Your task to perform on an android device: change notification settings in the gmail app Image 0: 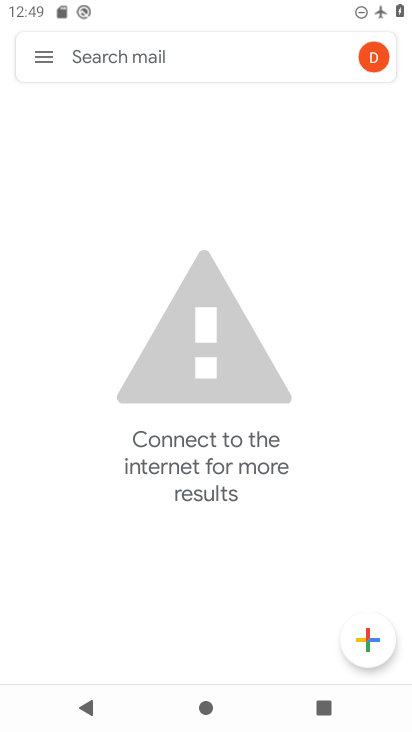
Step 0: press home button
Your task to perform on an android device: change notification settings in the gmail app Image 1: 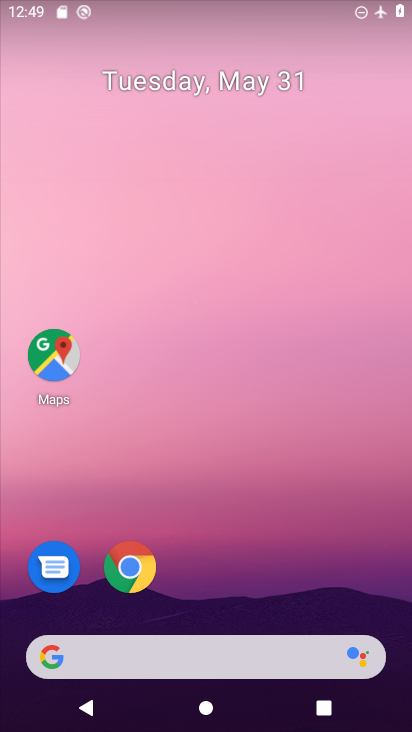
Step 1: drag from (201, 598) to (150, 179)
Your task to perform on an android device: change notification settings in the gmail app Image 2: 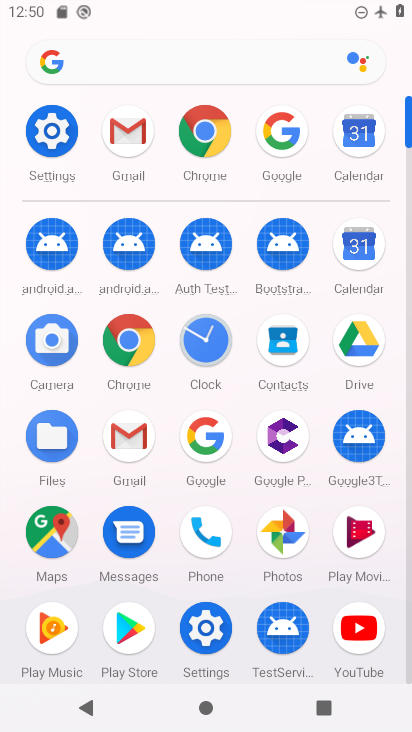
Step 2: click (116, 131)
Your task to perform on an android device: change notification settings in the gmail app Image 3: 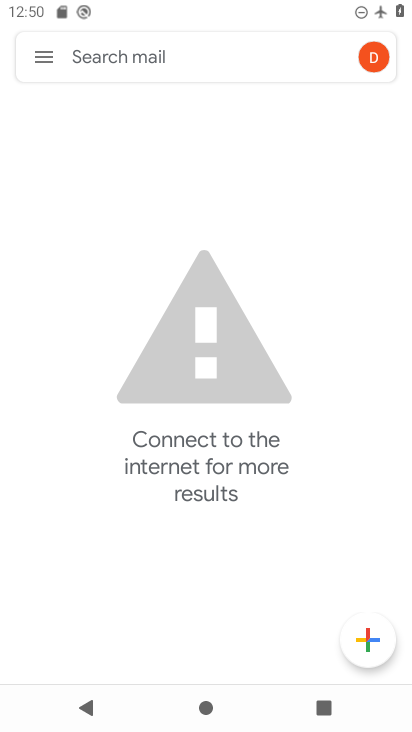
Step 3: click (37, 62)
Your task to perform on an android device: change notification settings in the gmail app Image 4: 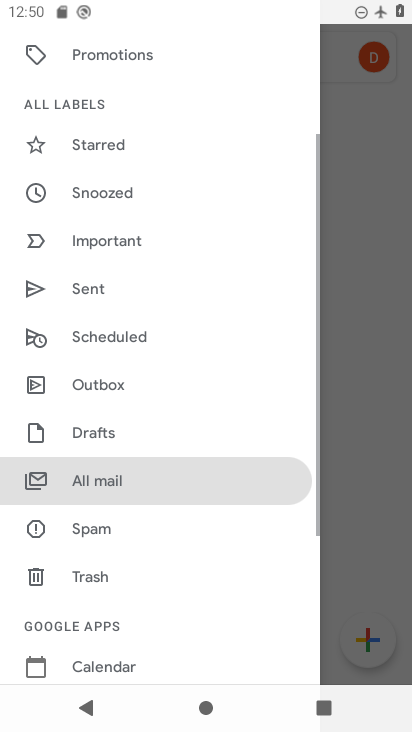
Step 4: drag from (176, 607) to (167, 332)
Your task to perform on an android device: change notification settings in the gmail app Image 5: 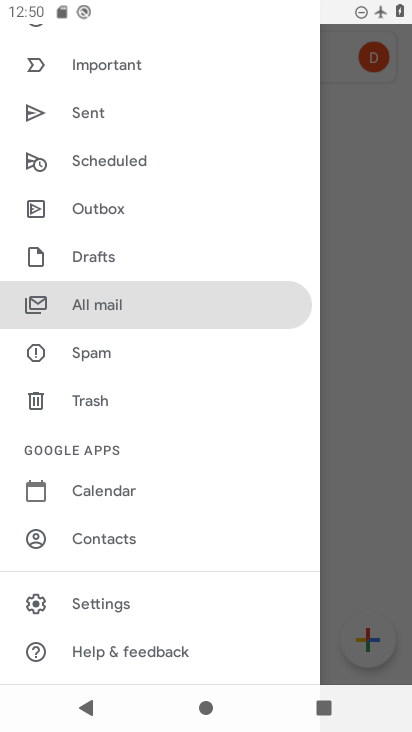
Step 5: click (130, 606)
Your task to perform on an android device: change notification settings in the gmail app Image 6: 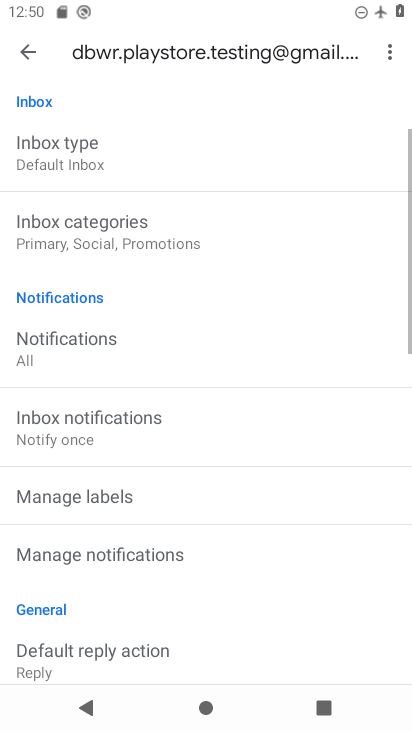
Step 6: drag from (172, 574) to (155, 260)
Your task to perform on an android device: change notification settings in the gmail app Image 7: 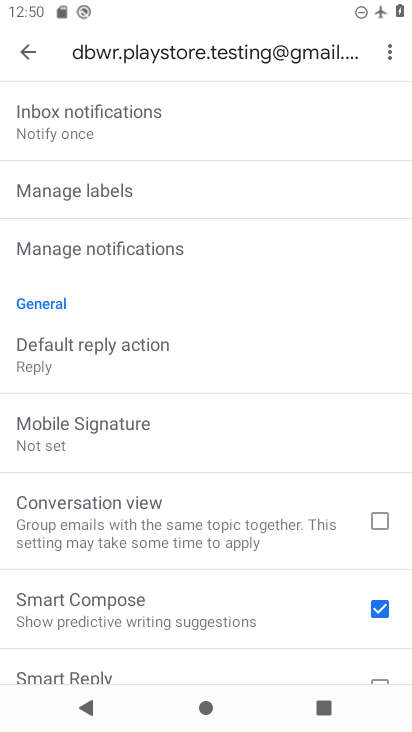
Step 7: click (158, 260)
Your task to perform on an android device: change notification settings in the gmail app Image 8: 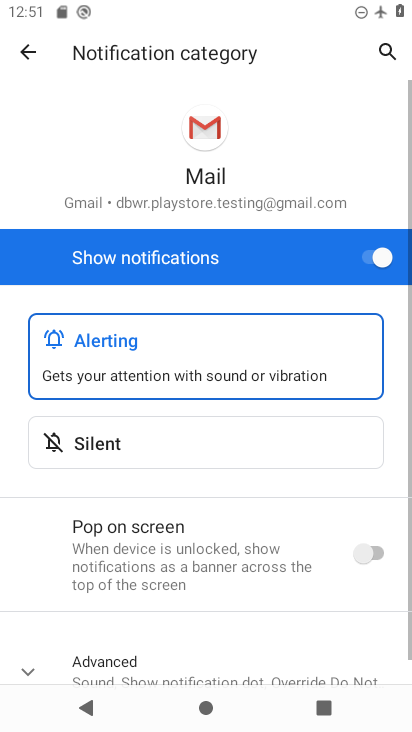
Step 8: click (362, 255)
Your task to perform on an android device: change notification settings in the gmail app Image 9: 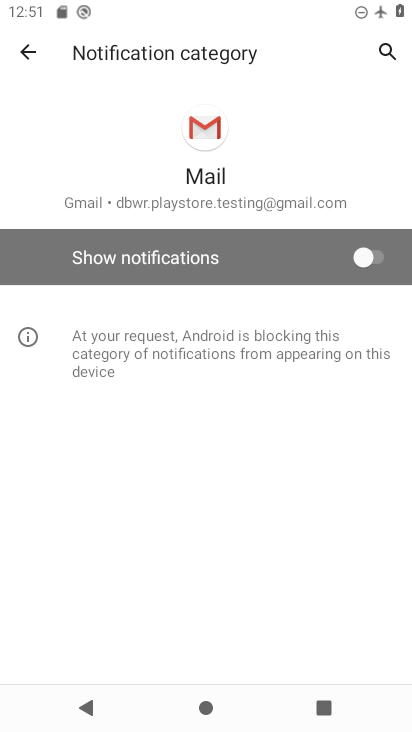
Step 9: task complete